Your task to perform on an android device: What is the speed of a tiger? Image 0: 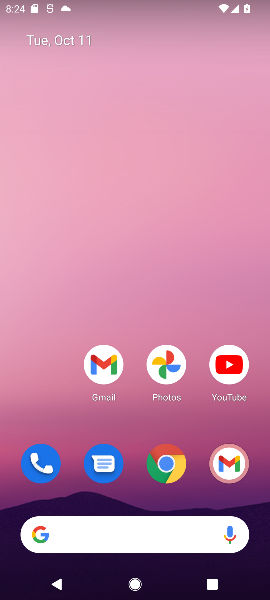
Step 0: drag from (104, 493) to (120, 158)
Your task to perform on an android device: What is the speed of a tiger? Image 1: 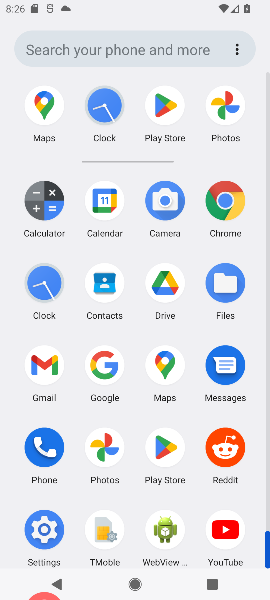
Step 1: click (113, 368)
Your task to perform on an android device: What is the speed of a tiger? Image 2: 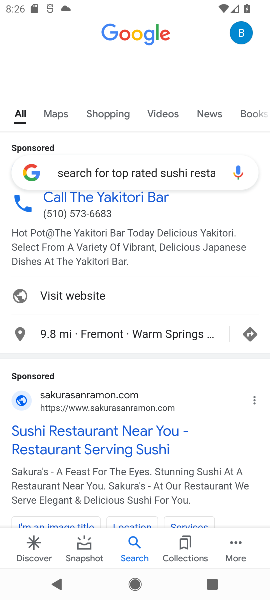
Step 2: click (109, 165)
Your task to perform on an android device: What is the speed of a tiger? Image 3: 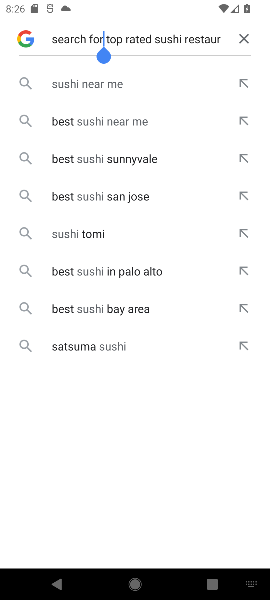
Step 3: click (238, 38)
Your task to perform on an android device: What is the speed of a tiger? Image 4: 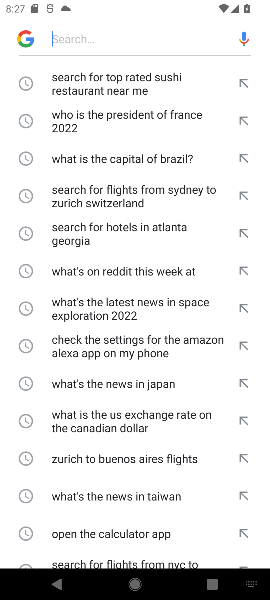
Step 4: click (131, 26)
Your task to perform on an android device: What is the speed of a tiger? Image 5: 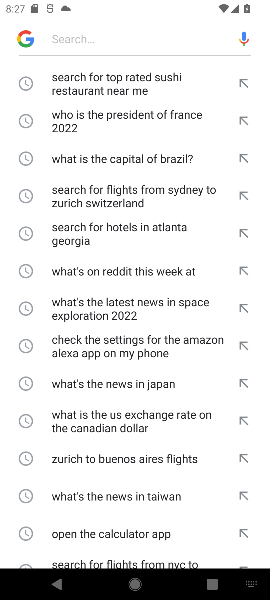
Step 5: type "What is the speed of a tiger?"
Your task to perform on an android device: What is the speed of a tiger? Image 6: 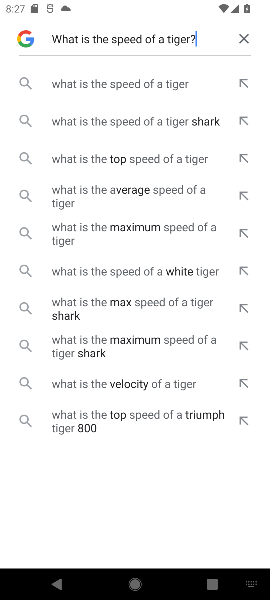
Step 6: click (129, 81)
Your task to perform on an android device: What is the speed of a tiger? Image 7: 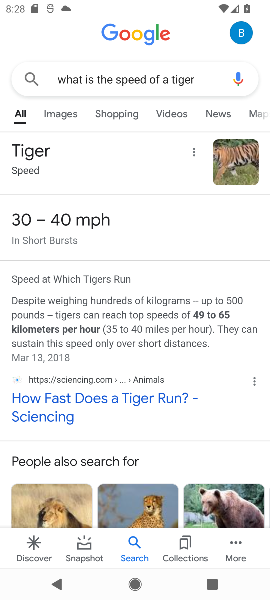
Step 7: task complete